Your task to perform on an android device: open a bookmark in the chrome app Image 0: 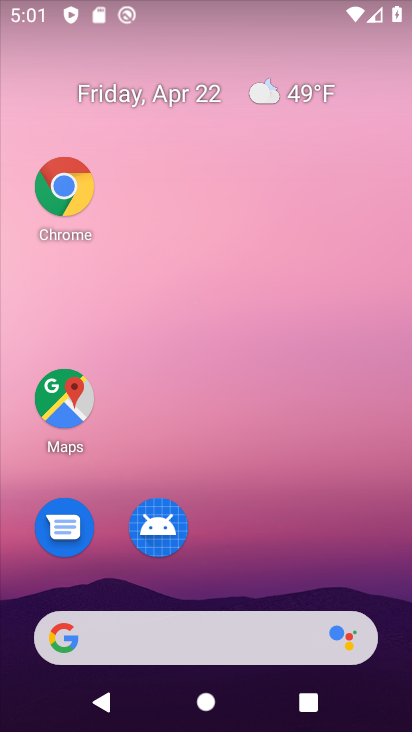
Step 0: drag from (233, 647) to (75, 2)
Your task to perform on an android device: open a bookmark in the chrome app Image 1: 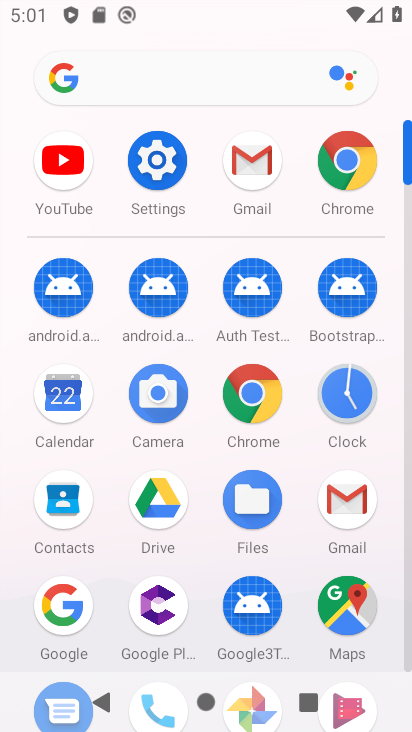
Step 1: click (344, 162)
Your task to perform on an android device: open a bookmark in the chrome app Image 2: 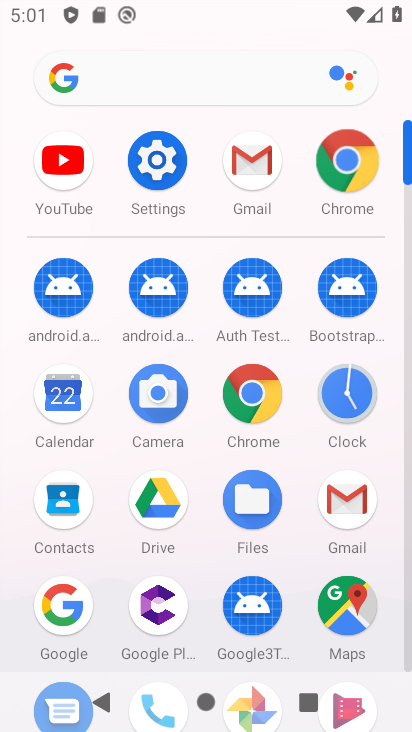
Step 2: click (347, 171)
Your task to perform on an android device: open a bookmark in the chrome app Image 3: 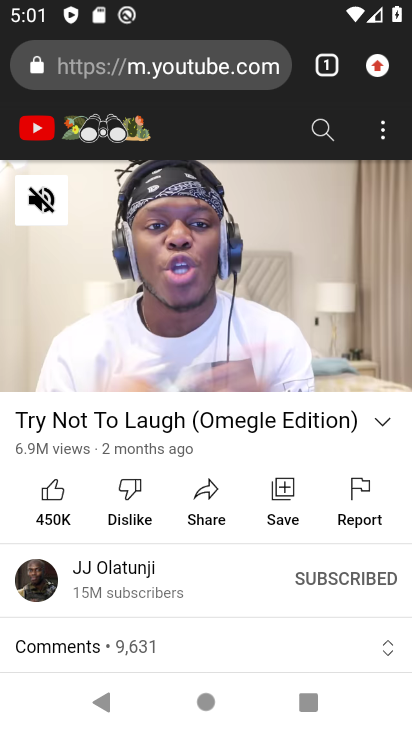
Step 3: drag from (382, 130) to (239, 471)
Your task to perform on an android device: open a bookmark in the chrome app Image 4: 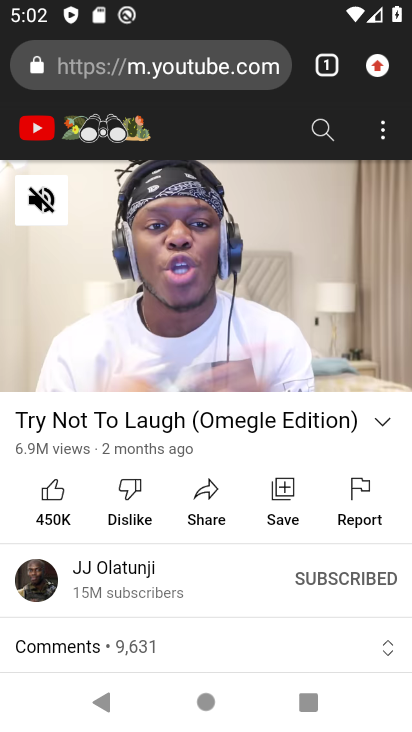
Step 4: press home button
Your task to perform on an android device: open a bookmark in the chrome app Image 5: 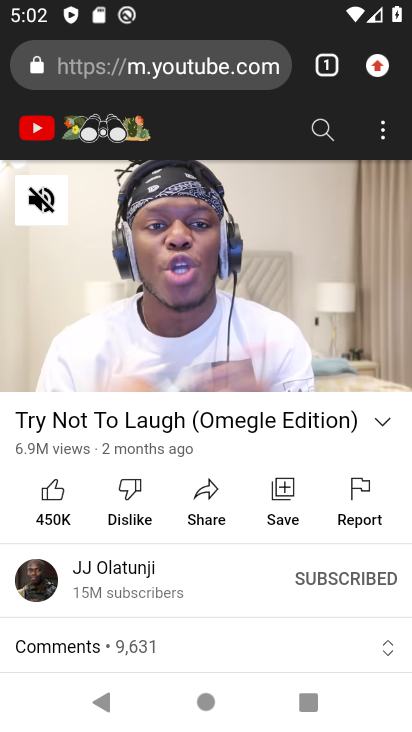
Step 5: press home button
Your task to perform on an android device: open a bookmark in the chrome app Image 6: 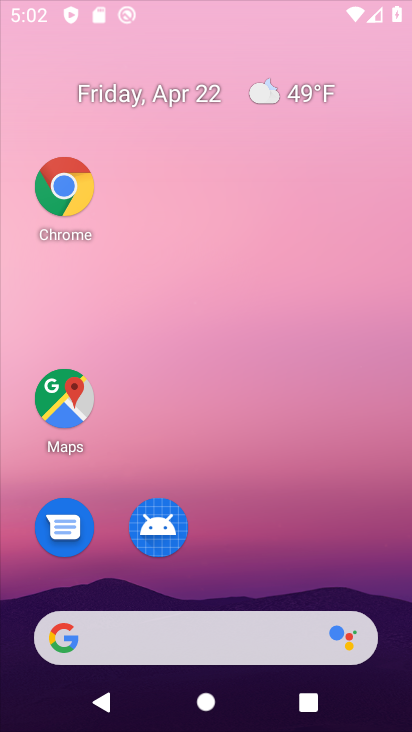
Step 6: press home button
Your task to perform on an android device: open a bookmark in the chrome app Image 7: 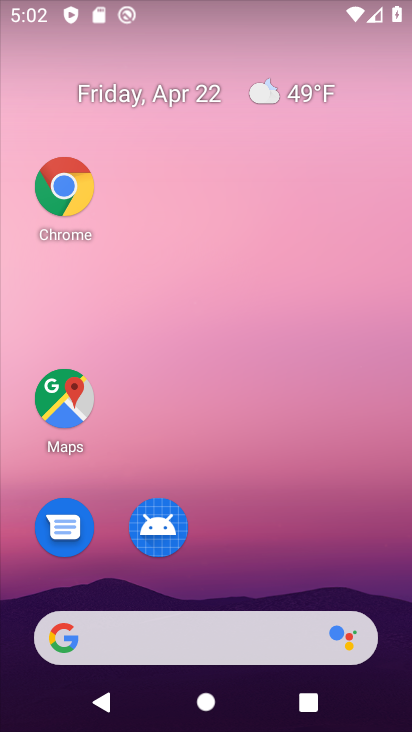
Step 7: press home button
Your task to perform on an android device: open a bookmark in the chrome app Image 8: 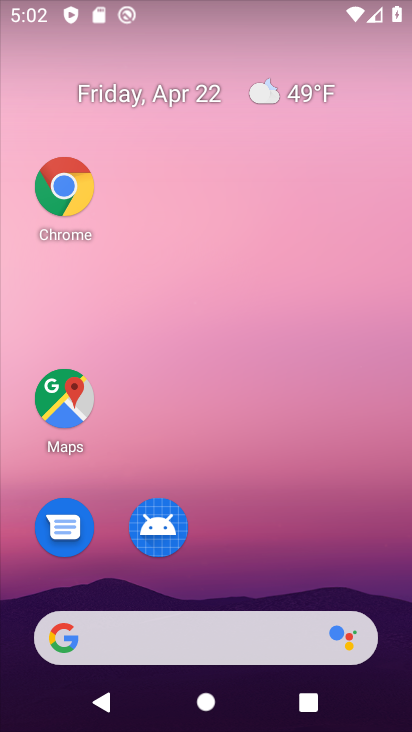
Step 8: drag from (227, 638) to (79, 65)
Your task to perform on an android device: open a bookmark in the chrome app Image 9: 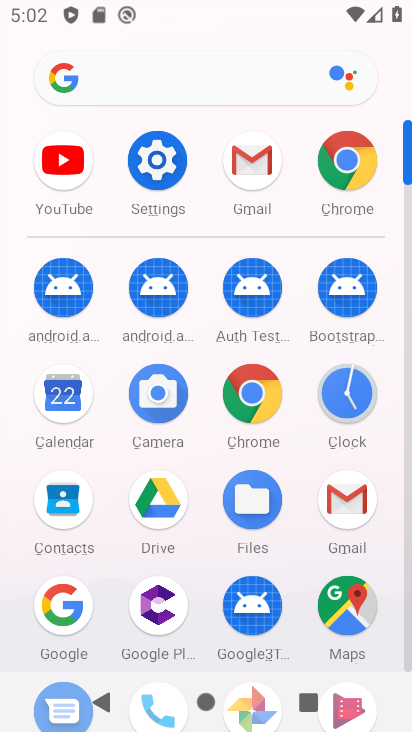
Step 9: drag from (346, 576) to (112, 92)
Your task to perform on an android device: open a bookmark in the chrome app Image 10: 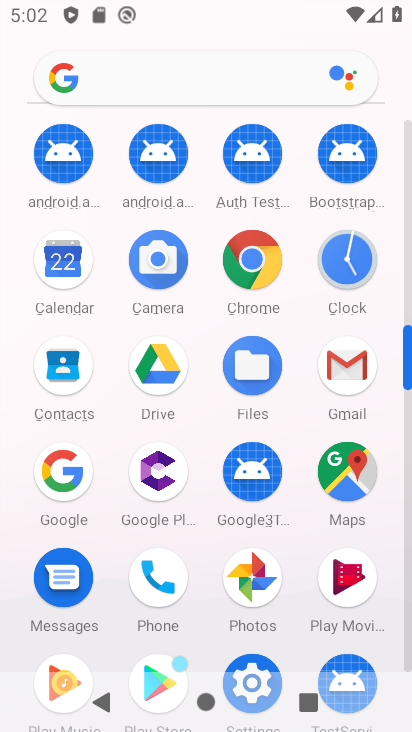
Step 10: click (259, 255)
Your task to perform on an android device: open a bookmark in the chrome app Image 11: 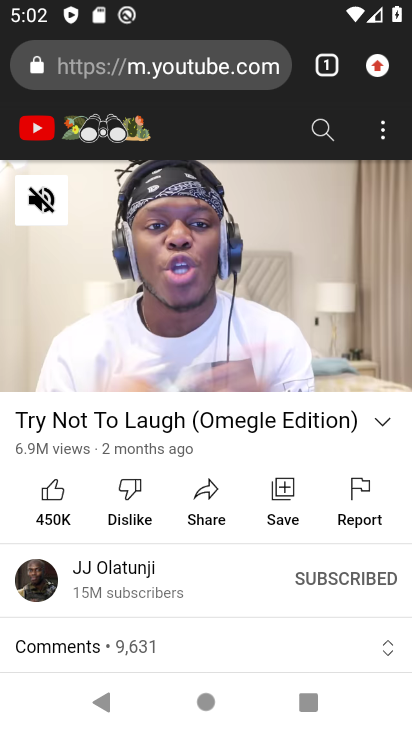
Step 11: press back button
Your task to perform on an android device: open a bookmark in the chrome app Image 12: 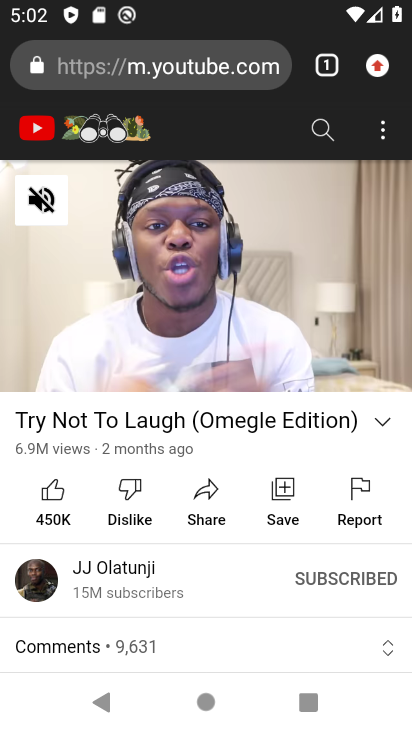
Step 12: press back button
Your task to perform on an android device: open a bookmark in the chrome app Image 13: 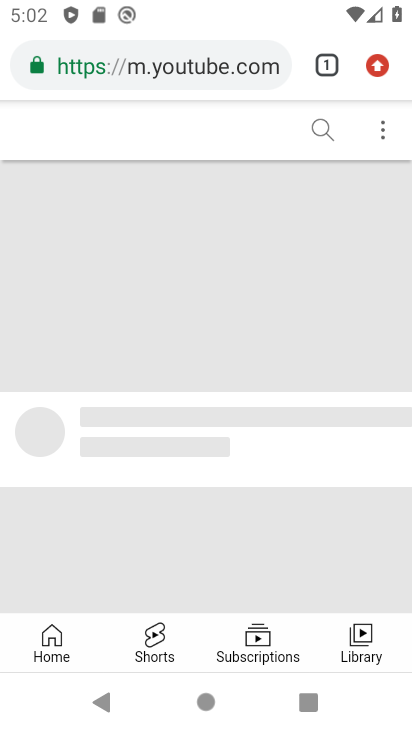
Step 13: press back button
Your task to perform on an android device: open a bookmark in the chrome app Image 14: 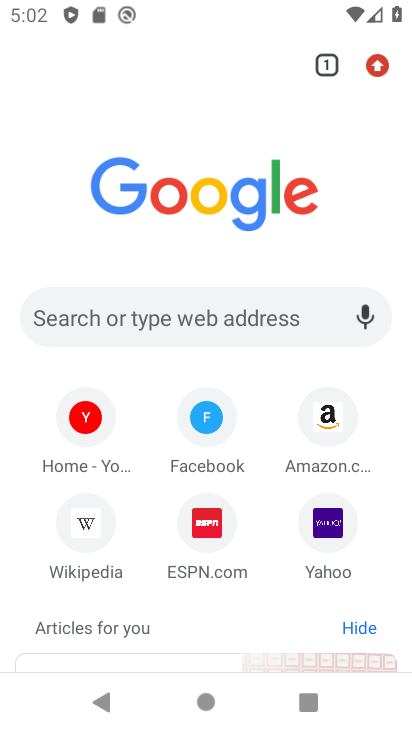
Step 14: press back button
Your task to perform on an android device: open a bookmark in the chrome app Image 15: 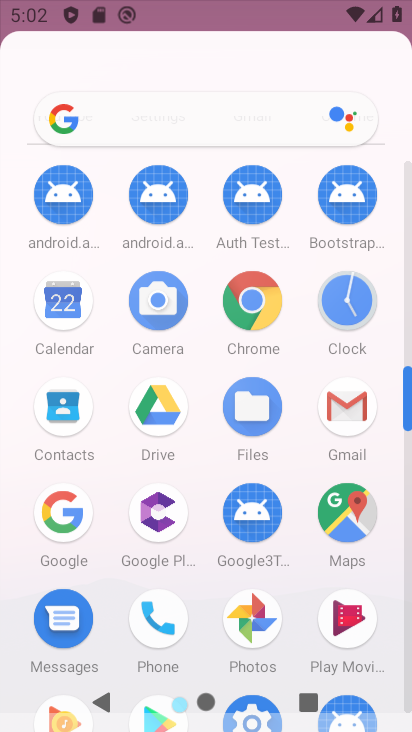
Step 15: press back button
Your task to perform on an android device: open a bookmark in the chrome app Image 16: 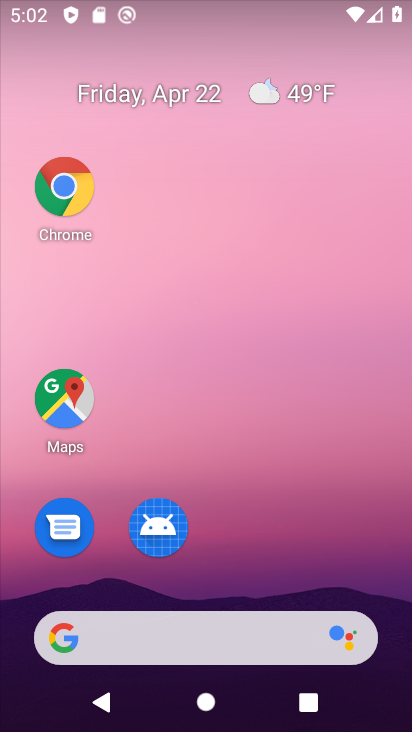
Step 16: press back button
Your task to perform on an android device: open a bookmark in the chrome app Image 17: 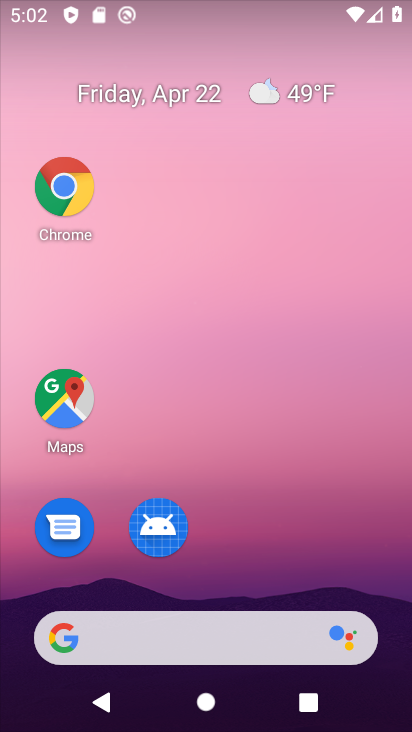
Step 17: press back button
Your task to perform on an android device: open a bookmark in the chrome app Image 18: 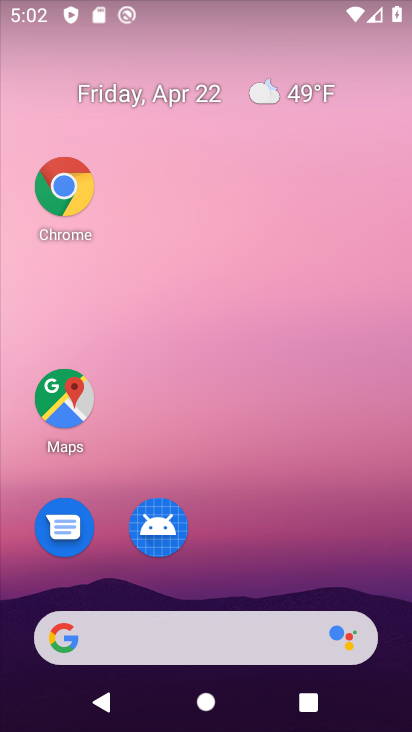
Step 18: drag from (254, 669) to (111, 54)
Your task to perform on an android device: open a bookmark in the chrome app Image 19: 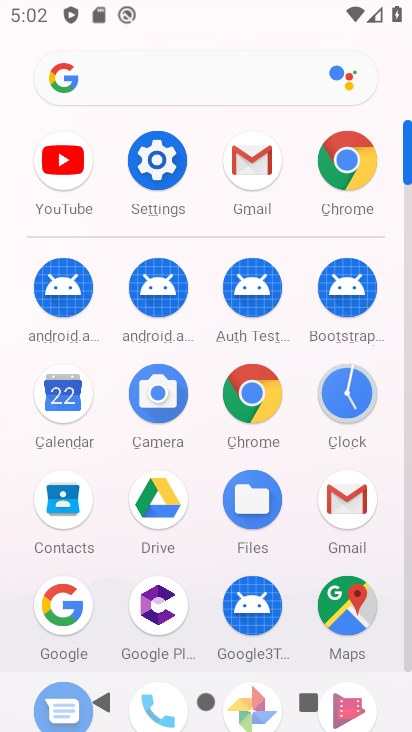
Step 19: click (334, 150)
Your task to perform on an android device: open a bookmark in the chrome app Image 20: 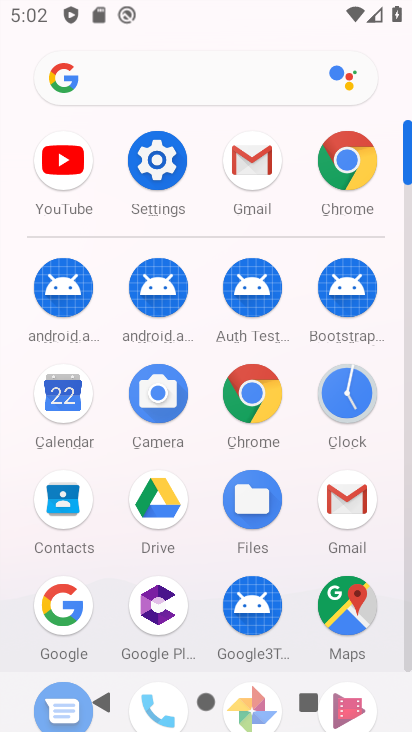
Step 20: click (335, 149)
Your task to perform on an android device: open a bookmark in the chrome app Image 21: 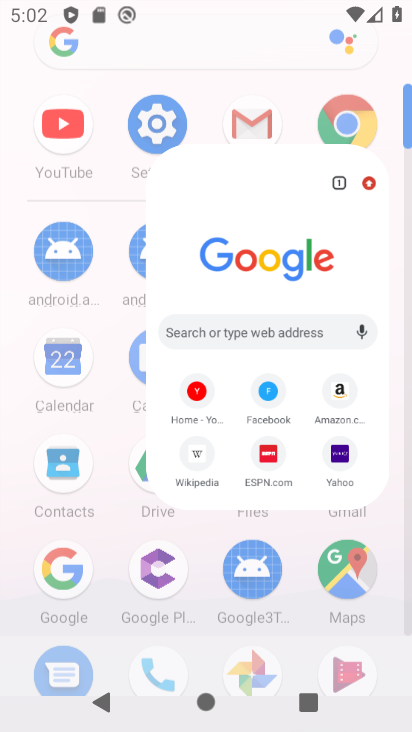
Step 21: click (336, 149)
Your task to perform on an android device: open a bookmark in the chrome app Image 22: 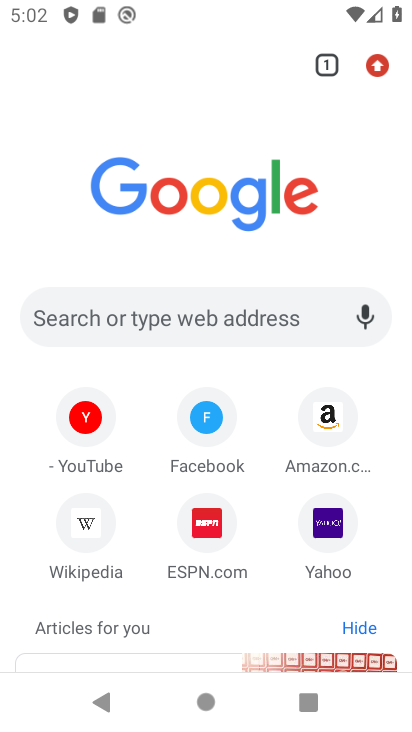
Step 22: drag from (367, 67) to (170, 331)
Your task to perform on an android device: open a bookmark in the chrome app Image 23: 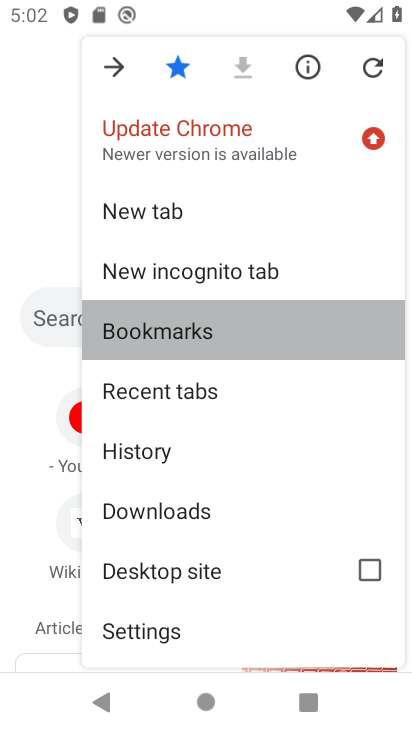
Step 23: click (170, 331)
Your task to perform on an android device: open a bookmark in the chrome app Image 24: 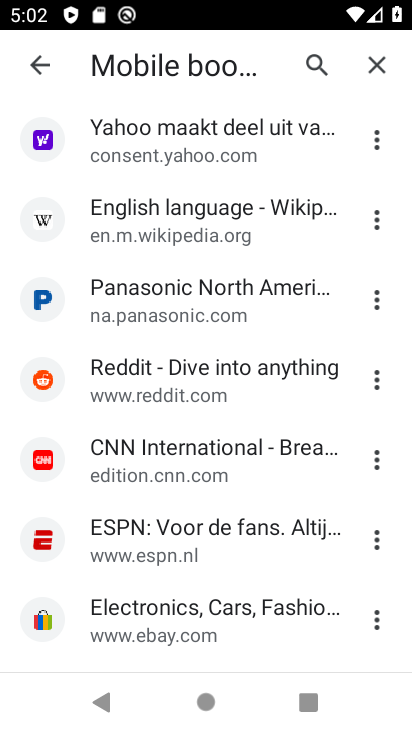
Step 24: click (177, 327)
Your task to perform on an android device: open a bookmark in the chrome app Image 25: 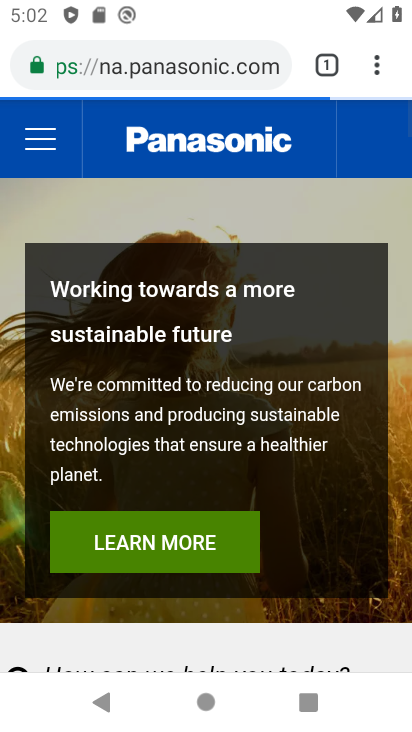
Step 25: task complete